Your task to perform on an android device: Search for seafood restaurants on Google Maps Image 0: 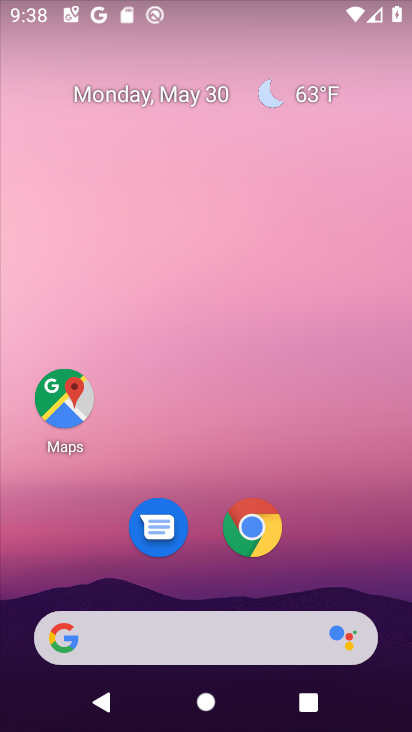
Step 0: click (52, 385)
Your task to perform on an android device: Search for seafood restaurants on Google Maps Image 1: 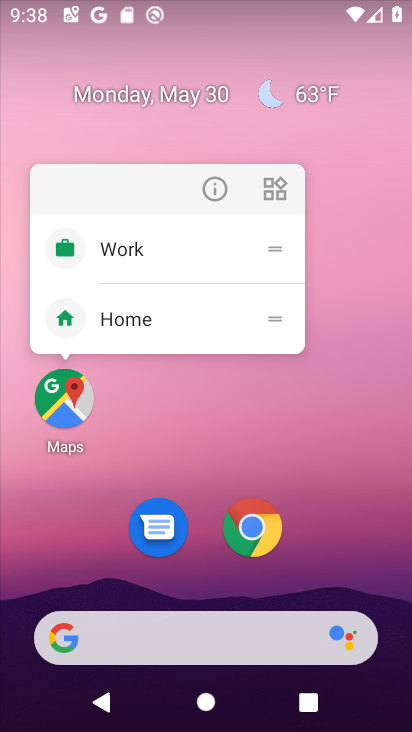
Step 1: click (56, 384)
Your task to perform on an android device: Search for seafood restaurants on Google Maps Image 2: 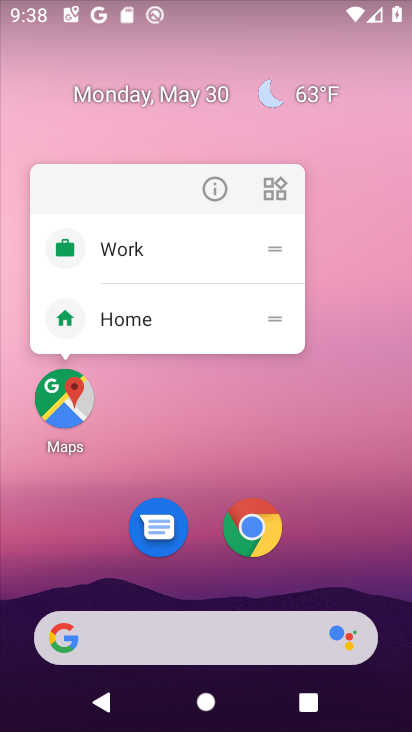
Step 2: click (57, 380)
Your task to perform on an android device: Search for seafood restaurants on Google Maps Image 3: 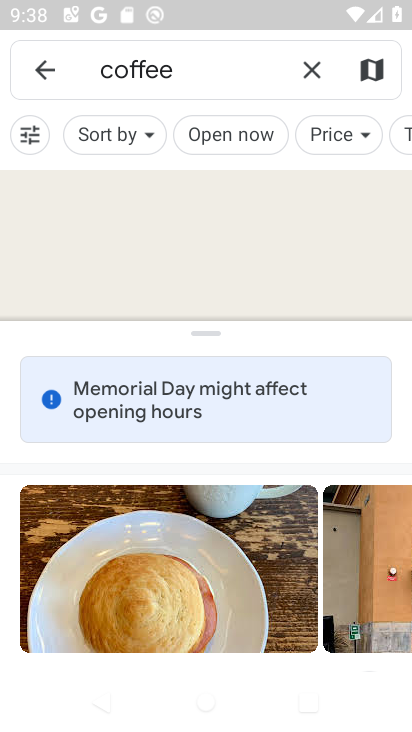
Step 3: click (319, 65)
Your task to perform on an android device: Search for seafood restaurants on Google Maps Image 4: 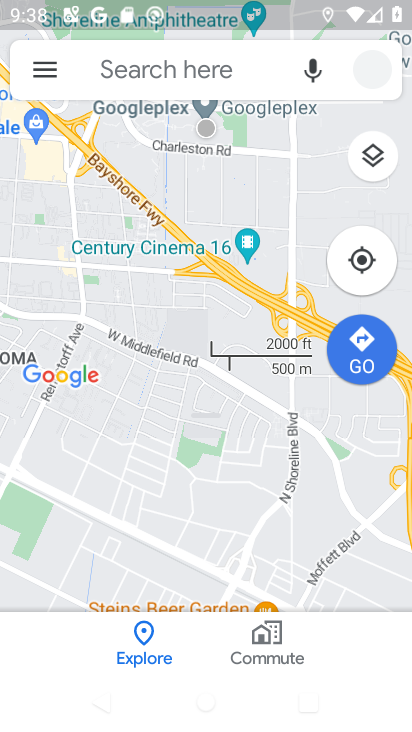
Step 4: click (204, 68)
Your task to perform on an android device: Search for seafood restaurants on Google Maps Image 5: 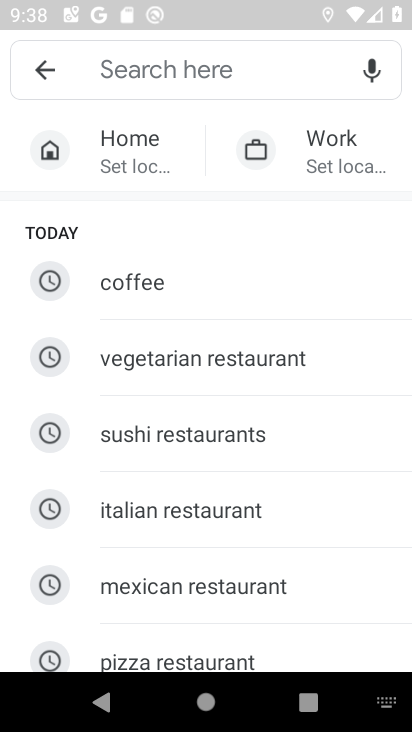
Step 5: drag from (163, 583) to (196, 299)
Your task to perform on an android device: Search for seafood restaurants on Google Maps Image 6: 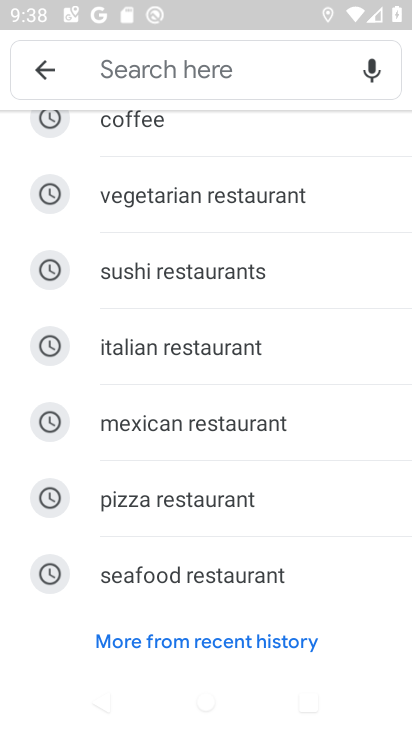
Step 6: click (170, 572)
Your task to perform on an android device: Search for seafood restaurants on Google Maps Image 7: 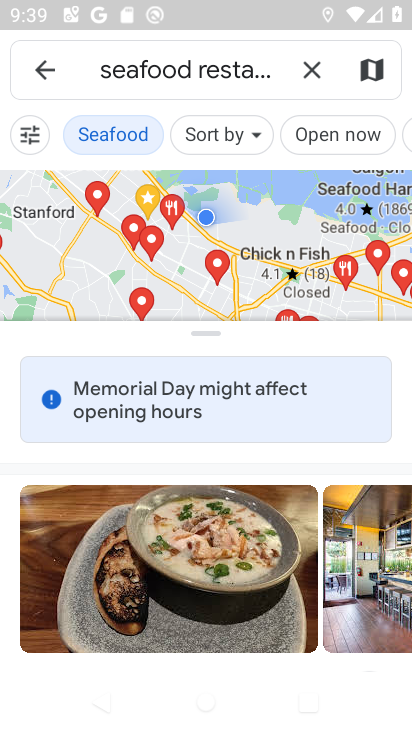
Step 7: task complete